Your task to perform on an android device: Open Maps and search for coffee Image 0: 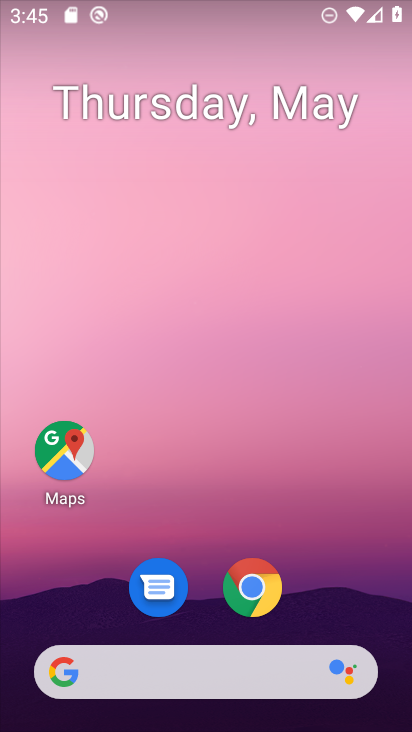
Step 0: drag from (356, 567) to (351, 262)
Your task to perform on an android device: Open Maps and search for coffee Image 1: 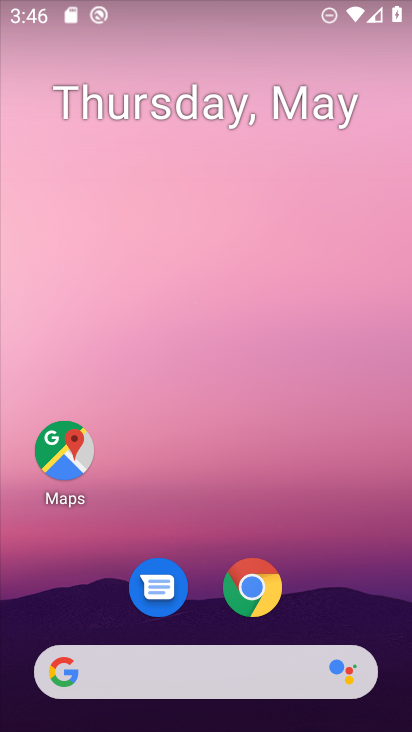
Step 1: drag from (373, 572) to (383, 168)
Your task to perform on an android device: Open Maps and search for coffee Image 2: 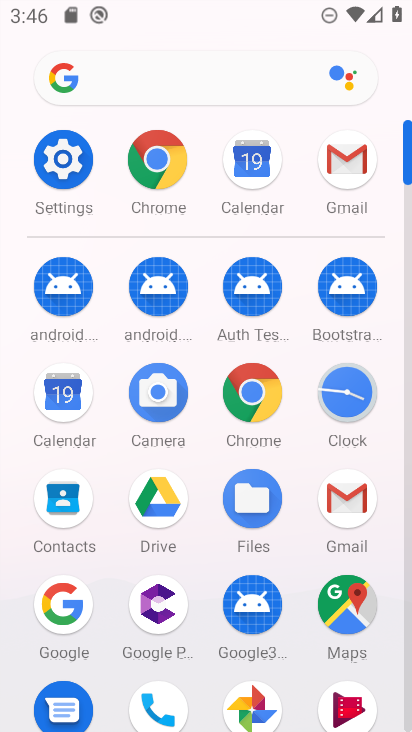
Step 2: click (356, 624)
Your task to perform on an android device: Open Maps and search for coffee Image 3: 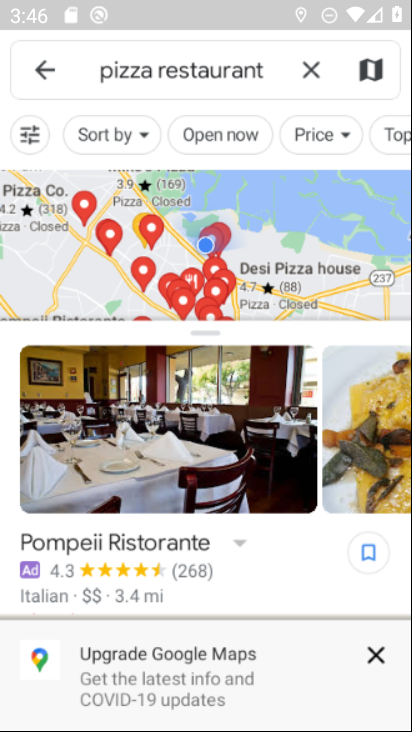
Step 3: click (306, 83)
Your task to perform on an android device: Open Maps and search for coffee Image 4: 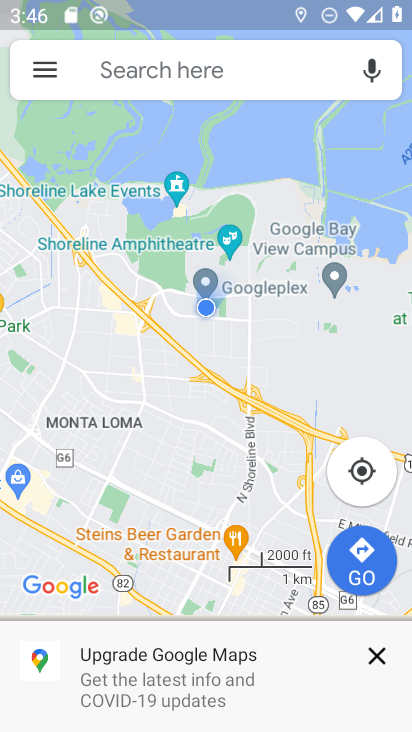
Step 4: click (282, 67)
Your task to perform on an android device: Open Maps and search for coffee Image 5: 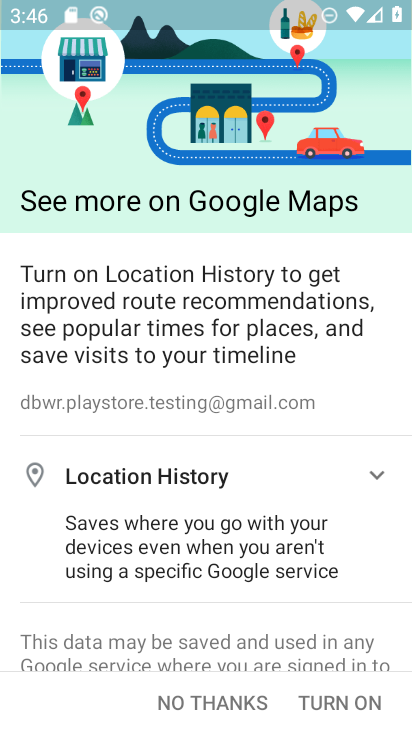
Step 5: click (267, 716)
Your task to perform on an android device: Open Maps and search for coffee Image 6: 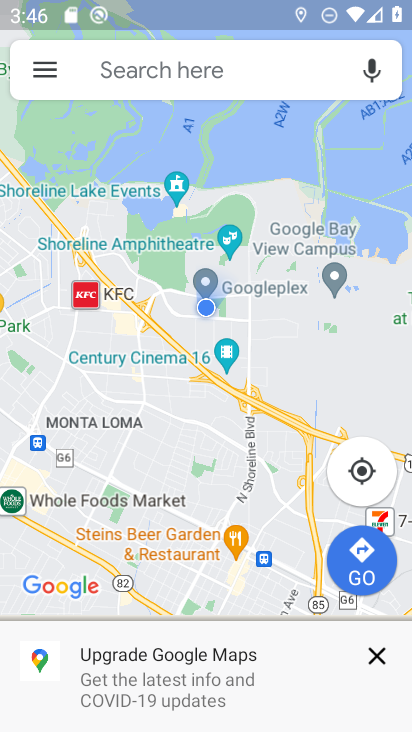
Step 6: click (256, 63)
Your task to perform on an android device: Open Maps and search for coffee Image 7: 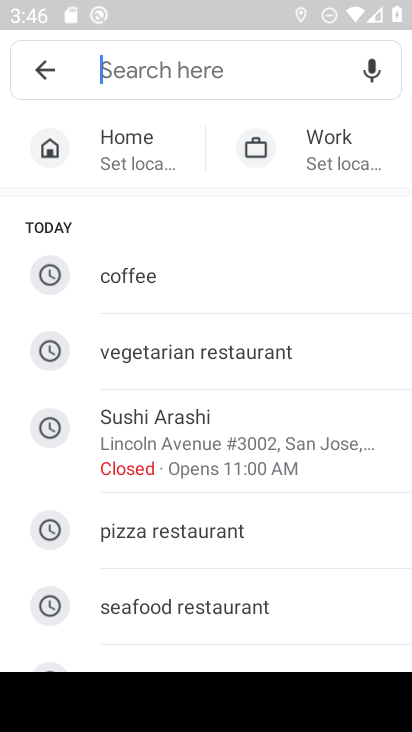
Step 7: type "coffee"
Your task to perform on an android device: Open Maps and search for coffee Image 8: 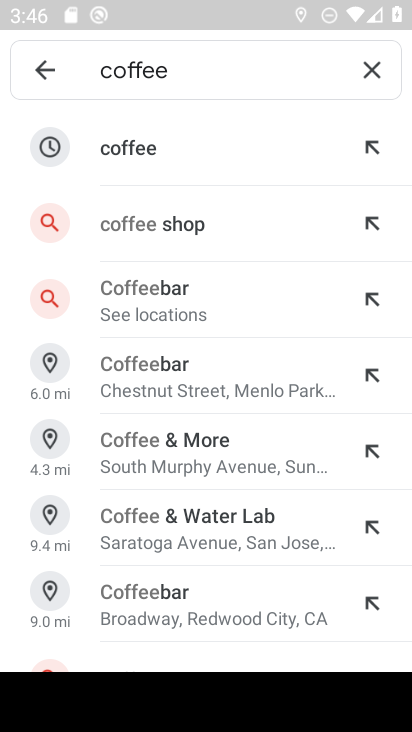
Step 8: click (283, 165)
Your task to perform on an android device: Open Maps and search for coffee Image 9: 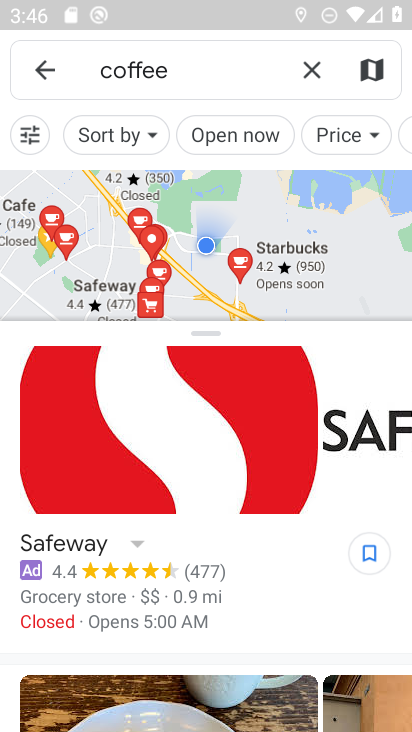
Step 9: task complete